Your task to perform on an android device: turn smart compose on in the gmail app Image 0: 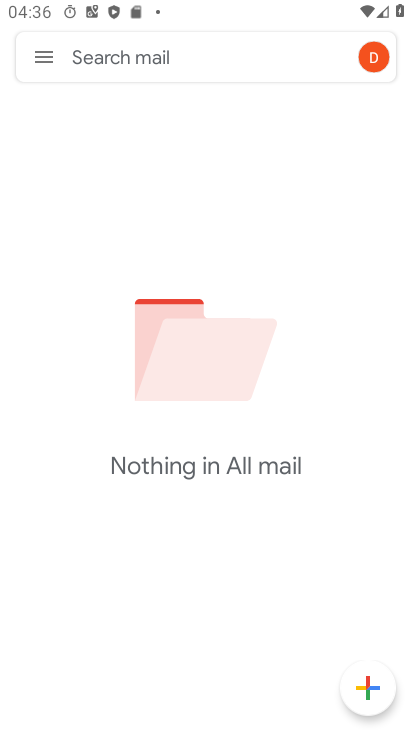
Step 0: click (46, 54)
Your task to perform on an android device: turn smart compose on in the gmail app Image 1: 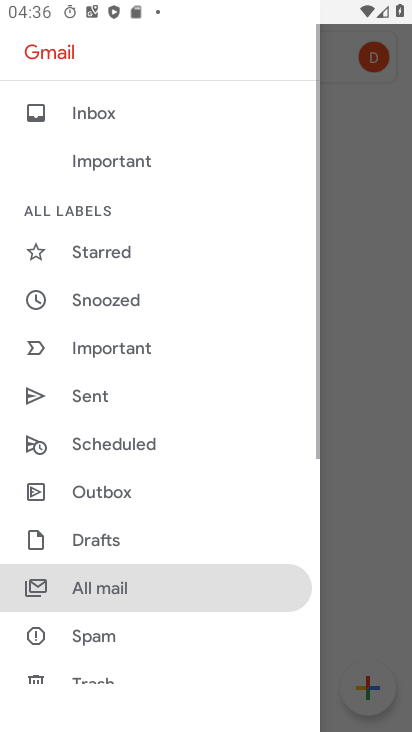
Step 1: drag from (134, 636) to (216, 36)
Your task to perform on an android device: turn smart compose on in the gmail app Image 2: 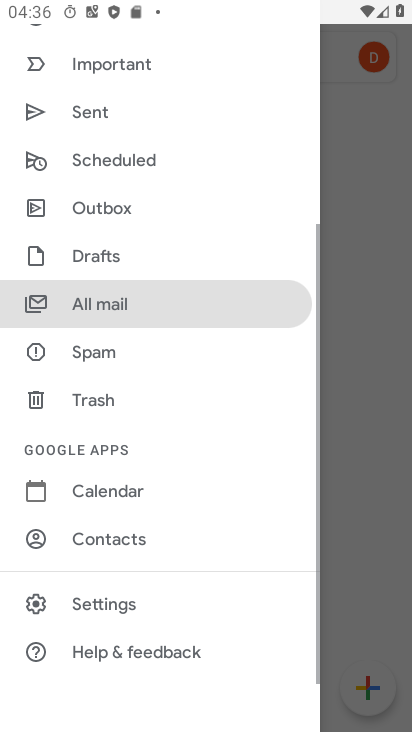
Step 2: click (103, 602)
Your task to perform on an android device: turn smart compose on in the gmail app Image 3: 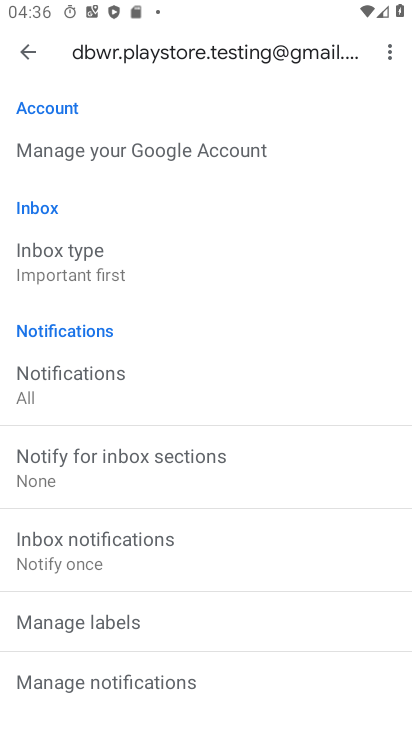
Step 3: task complete